Your task to perform on an android device: set the timer Image 0: 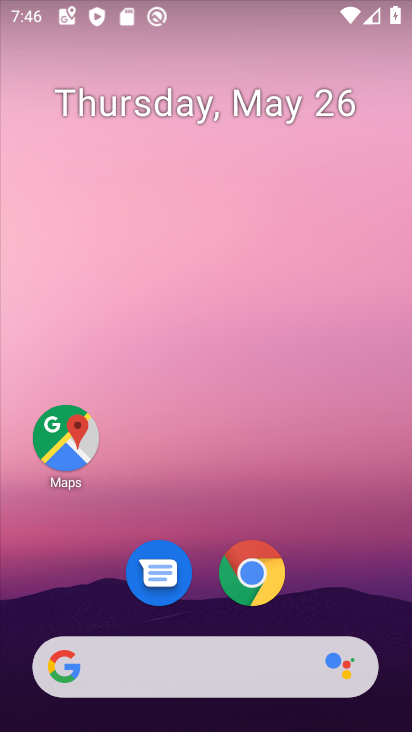
Step 0: drag from (360, 562) to (277, 151)
Your task to perform on an android device: set the timer Image 1: 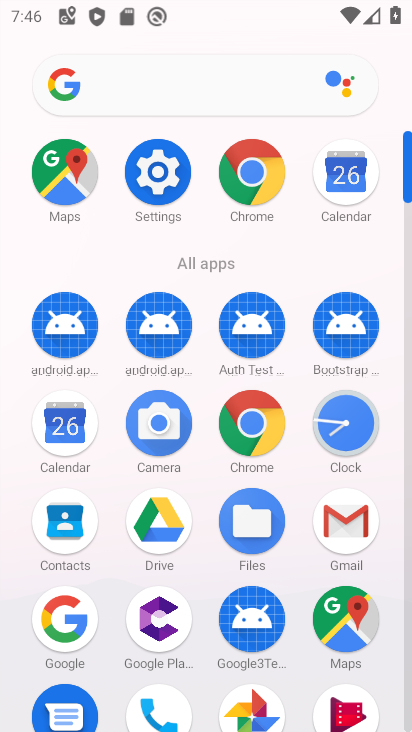
Step 1: click (346, 426)
Your task to perform on an android device: set the timer Image 2: 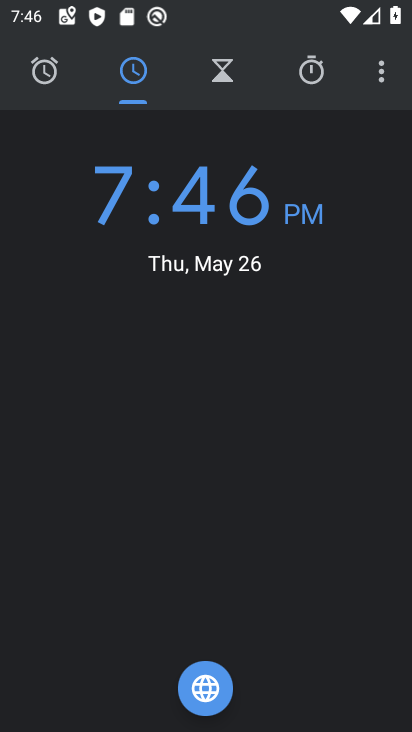
Step 2: click (224, 78)
Your task to perform on an android device: set the timer Image 3: 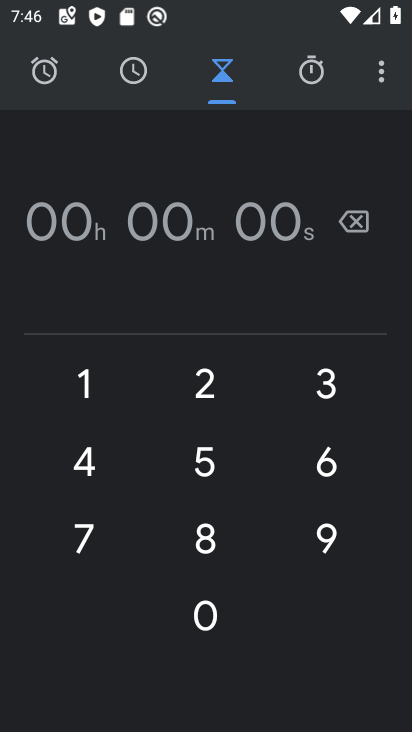
Step 3: click (191, 440)
Your task to perform on an android device: set the timer Image 4: 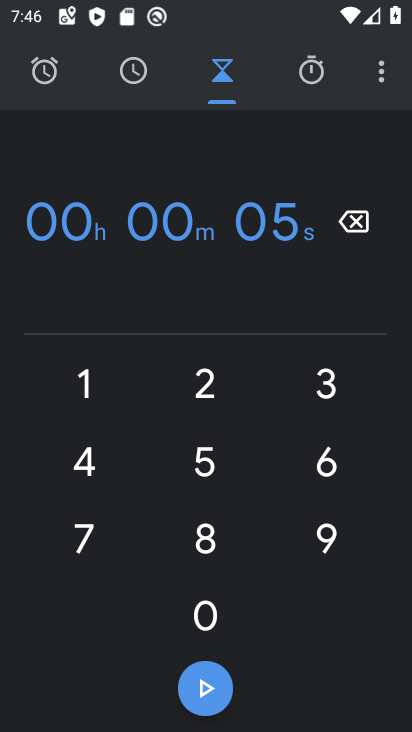
Step 4: task complete